Your task to perform on an android device: toggle wifi Image 0: 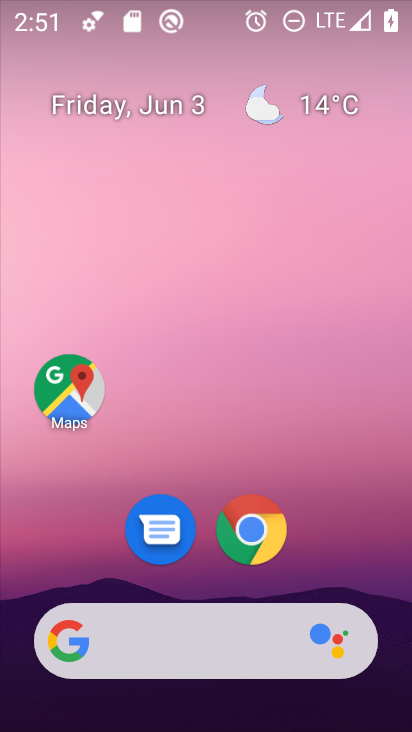
Step 0: drag from (354, 547) to (339, 178)
Your task to perform on an android device: toggle wifi Image 1: 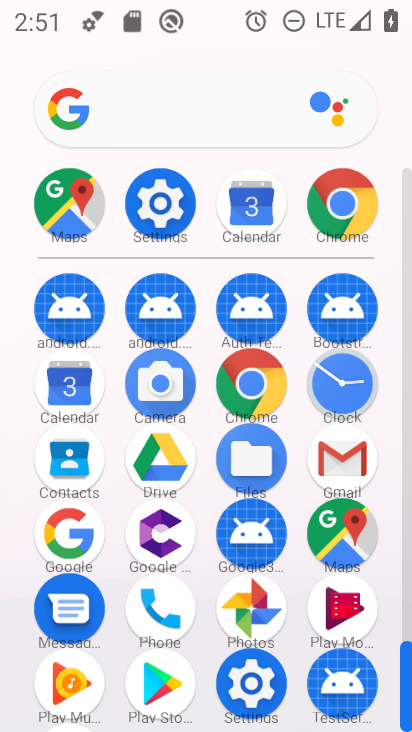
Step 1: click (168, 219)
Your task to perform on an android device: toggle wifi Image 2: 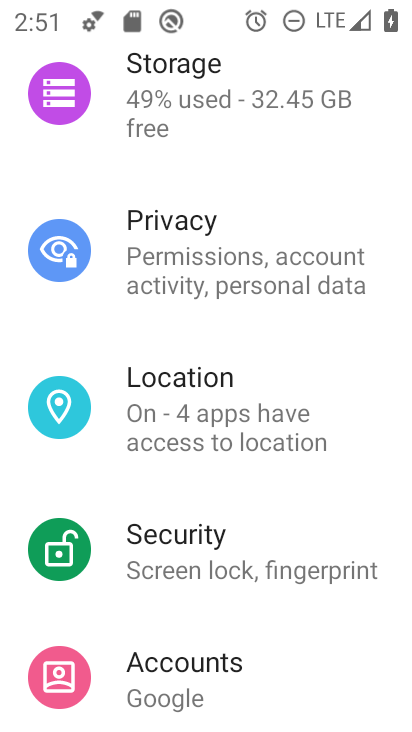
Step 2: drag from (350, 191) to (337, 374)
Your task to perform on an android device: toggle wifi Image 3: 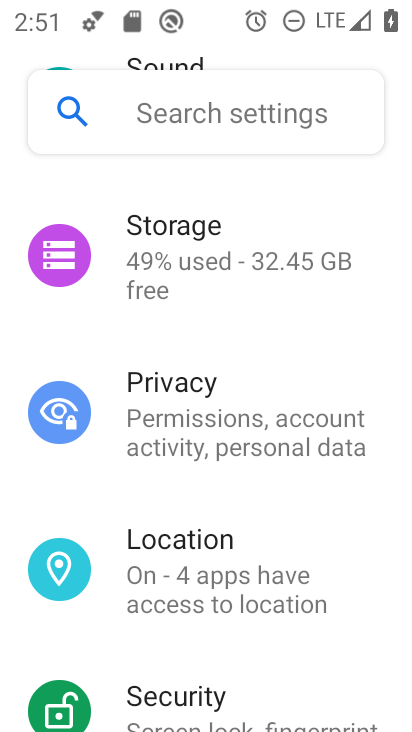
Step 3: drag from (367, 196) to (369, 338)
Your task to perform on an android device: toggle wifi Image 4: 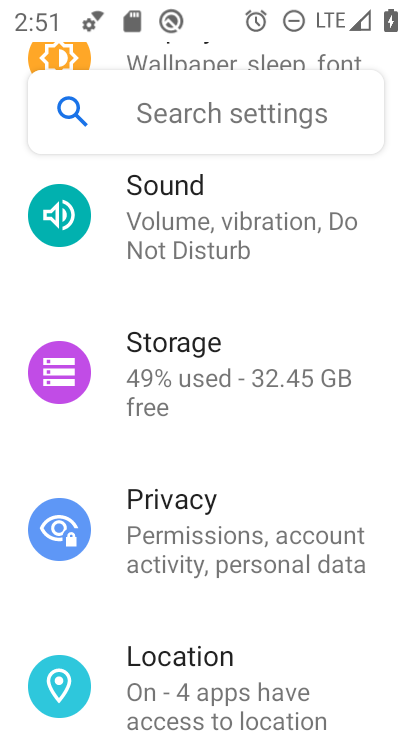
Step 4: drag from (371, 257) to (371, 383)
Your task to perform on an android device: toggle wifi Image 5: 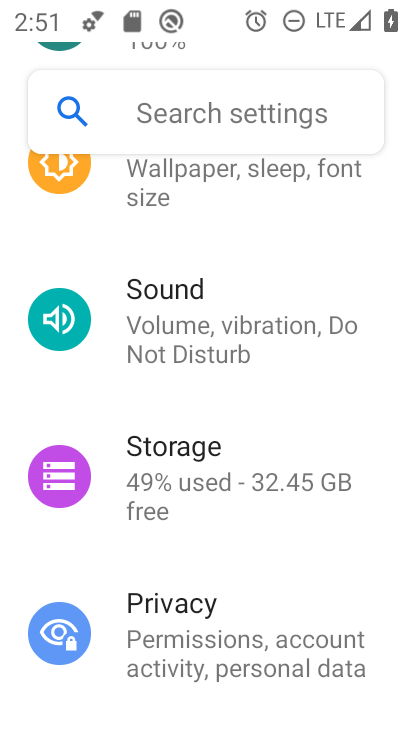
Step 5: drag from (361, 239) to (358, 403)
Your task to perform on an android device: toggle wifi Image 6: 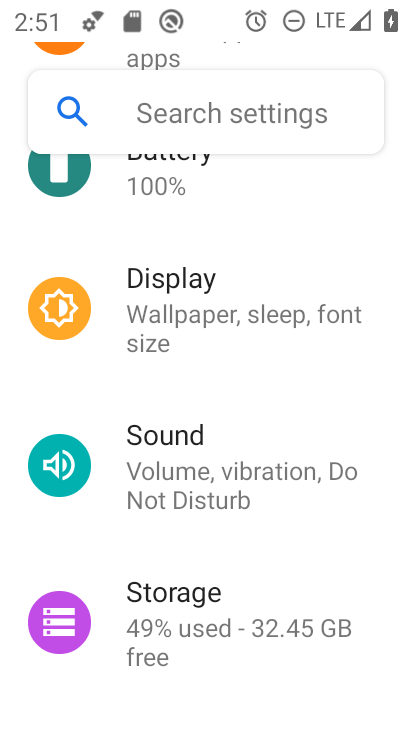
Step 6: drag from (359, 243) to (367, 394)
Your task to perform on an android device: toggle wifi Image 7: 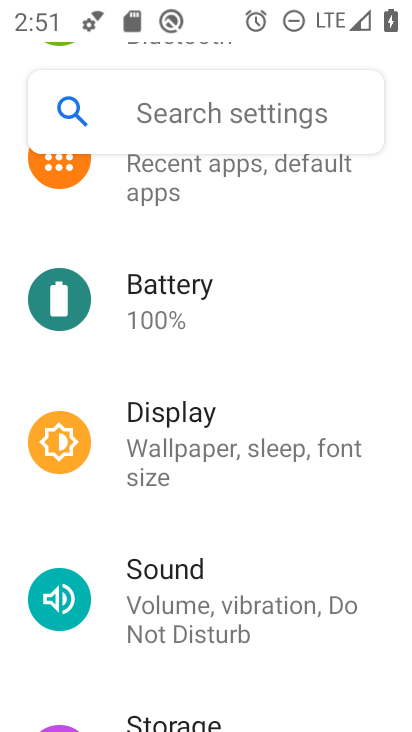
Step 7: drag from (341, 274) to (343, 375)
Your task to perform on an android device: toggle wifi Image 8: 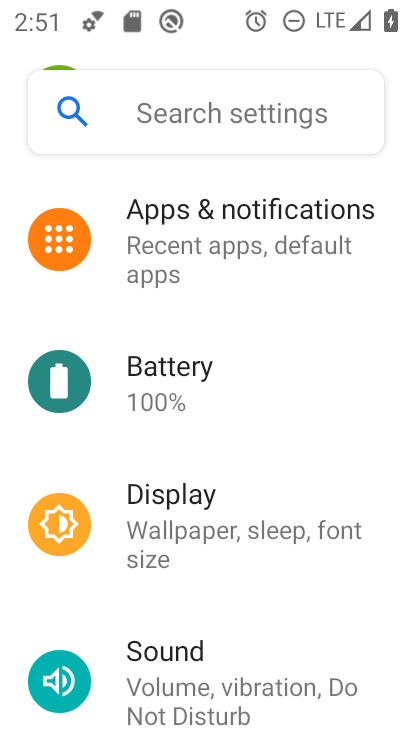
Step 8: drag from (364, 261) to (364, 382)
Your task to perform on an android device: toggle wifi Image 9: 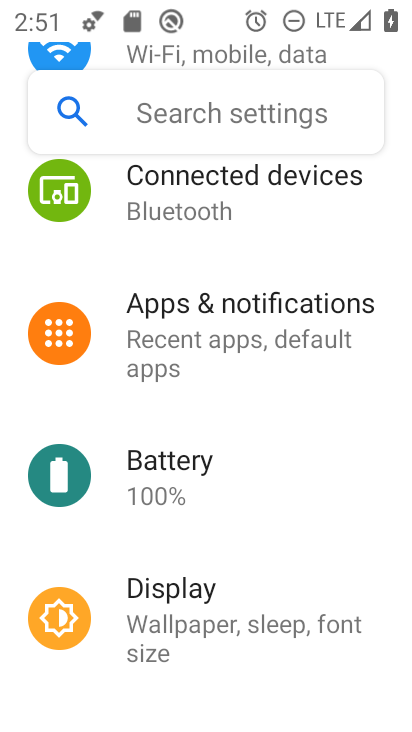
Step 9: drag from (347, 250) to (344, 358)
Your task to perform on an android device: toggle wifi Image 10: 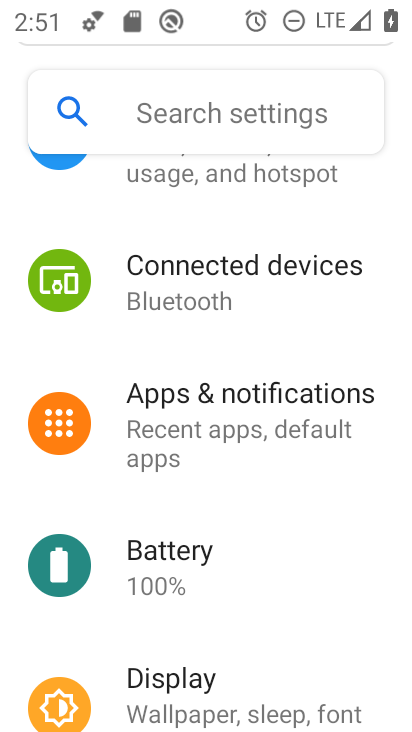
Step 10: drag from (371, 248) to (368, 359)
Your task to perform on an android device: toggle wifi Image 11: 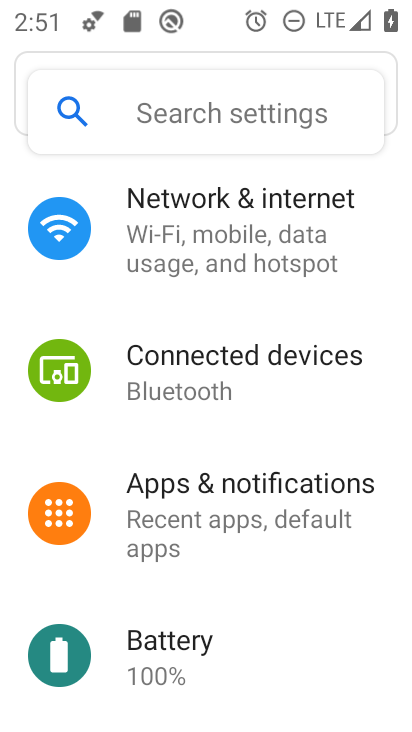
Step 11: drag from (371, 261) to (375, 398)
Your task to perform on an android device: toggle wifi Image 12: 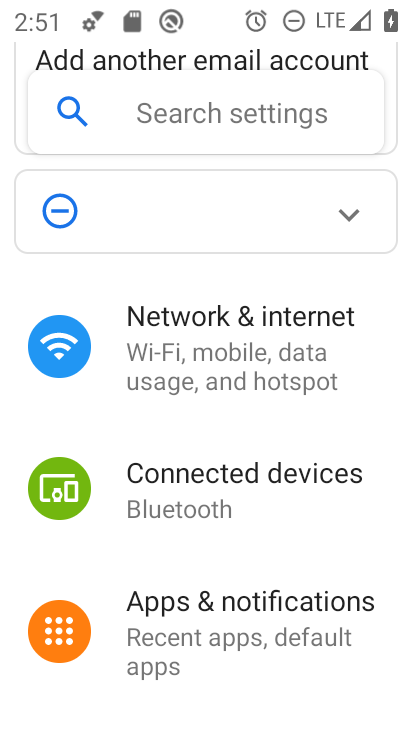
Step 12: drag from (372, 277) to (373, 409)
Your task to perform on an android device: toggle wifi Image 13: 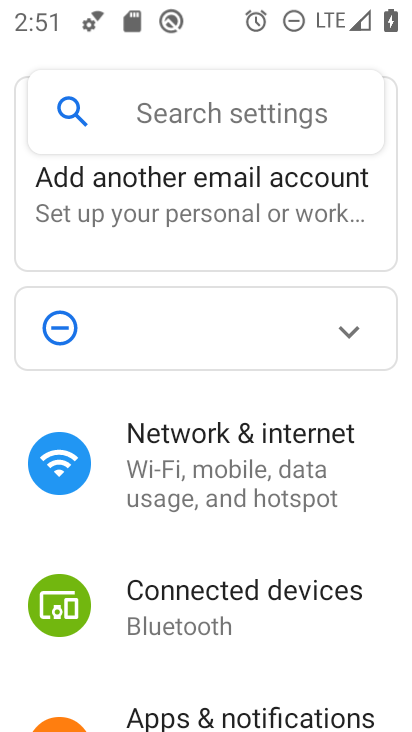
Step 13: drag from (357, 239) to (342, 508)
Your task to perform on an android device: toggle wifi Image 14: 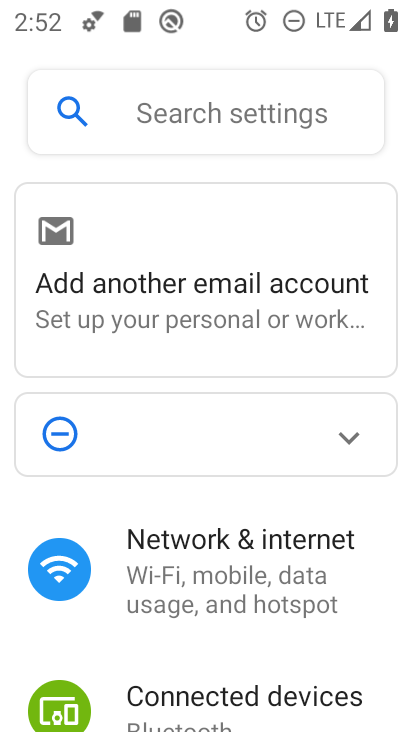
Step 14: click (294, 587)
Your task to perform on an android device: toggle wifi Image 15: 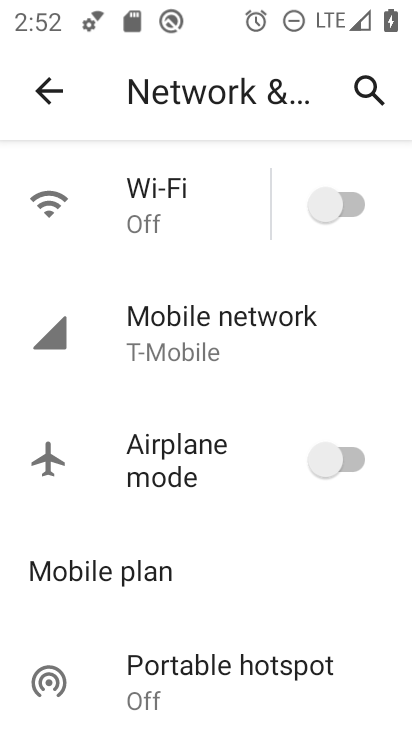
Step 15: click (327, 222)
Your task to perform on an android device: toggle wifi Image 16: 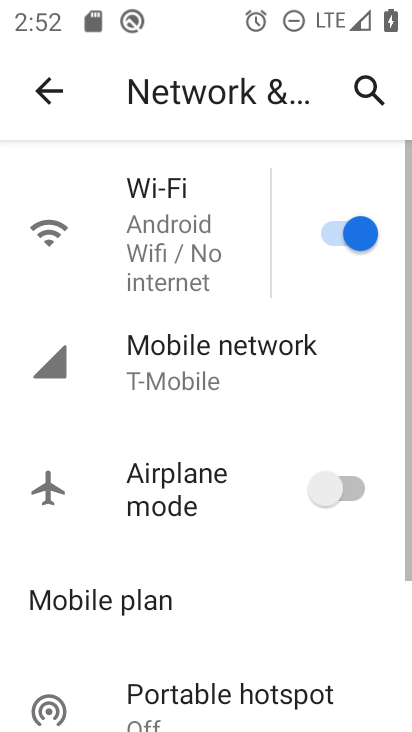
Step 16: task complete